Your task to perform on an android device: turn off translation in the chrome app Image 0: 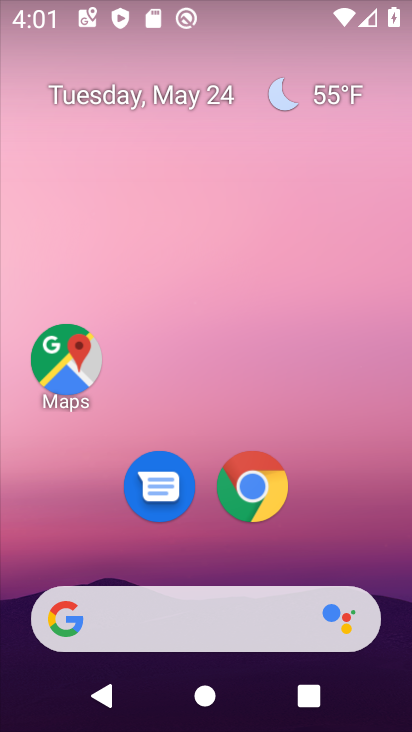
Step 0: drag from (295, 517) to (292, 168)
Your task to perform on an android device: turn off translation in the chrome app Image 1: 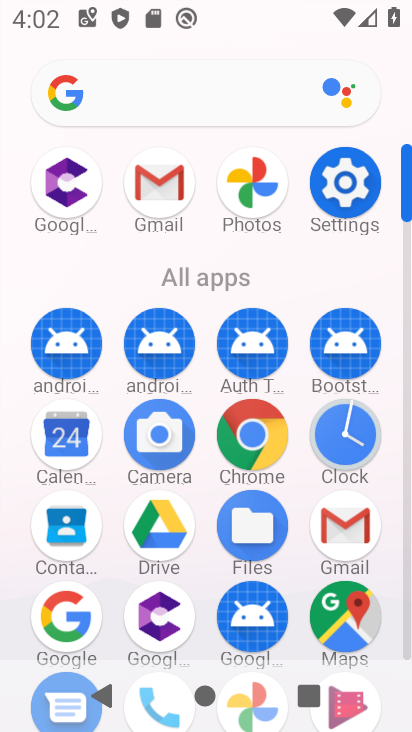
Step 1: click (256, 449)
Your task to perform on an android device: turn off translation in the chrome app Image 2: 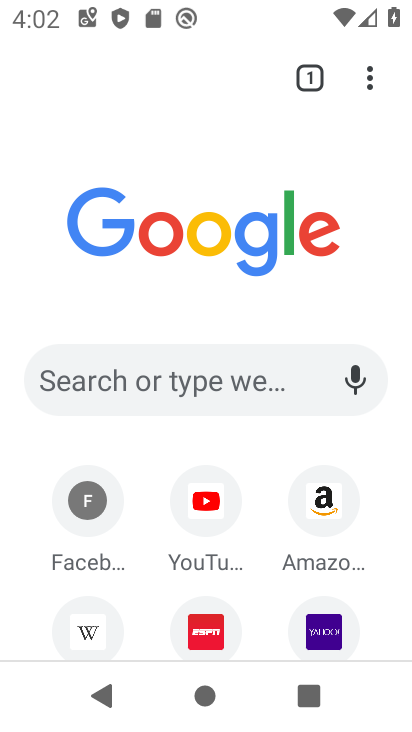
Step 2: click (372, 82)
Your task to perform on an android device: turn off translation in the chrome app Image 3: 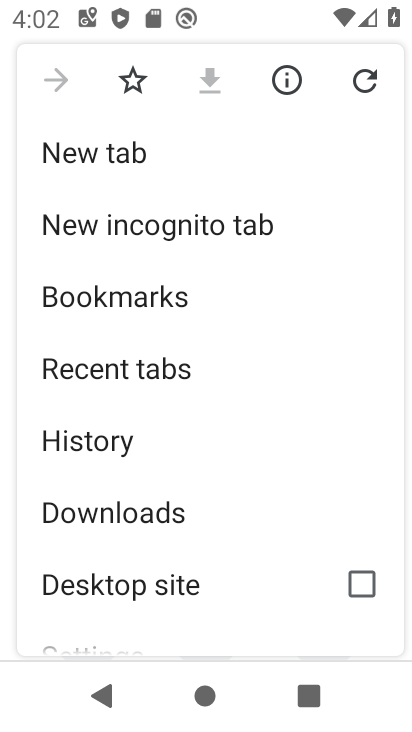
Step 3: drag from (237, 485) to (236, 187)
Your task to perform on an android device: turn off translation in the chrome app Image 4: 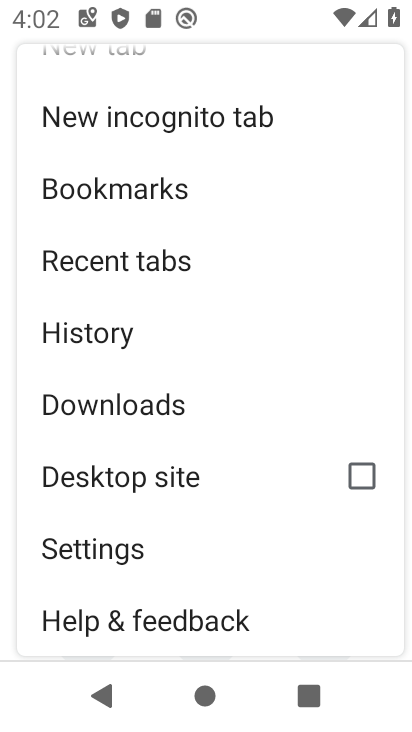
Step 4: click (127, 572)
Your task to perform on an android device: turn off translation in the chrome app Image 5: 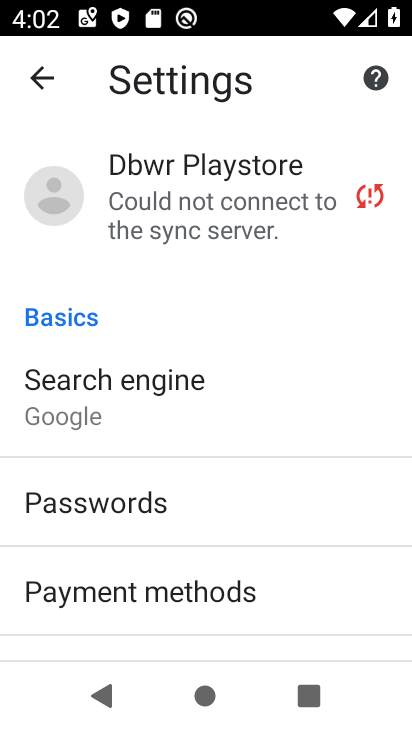
Step 5: drag from (185, 568) to (159, 354)
Your task to perform on an android device: turn off translation in the chrome app Image 6: 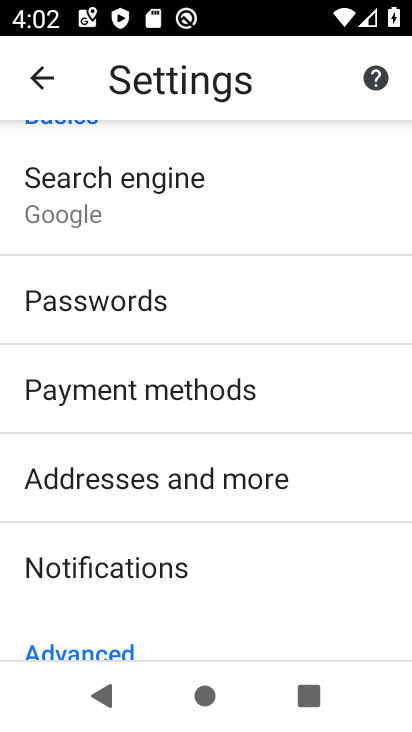
Step 6: drag from (146, 596) to (131, 325)
Your task to perform on an android device: turn off translation in the chrome app Image 7: 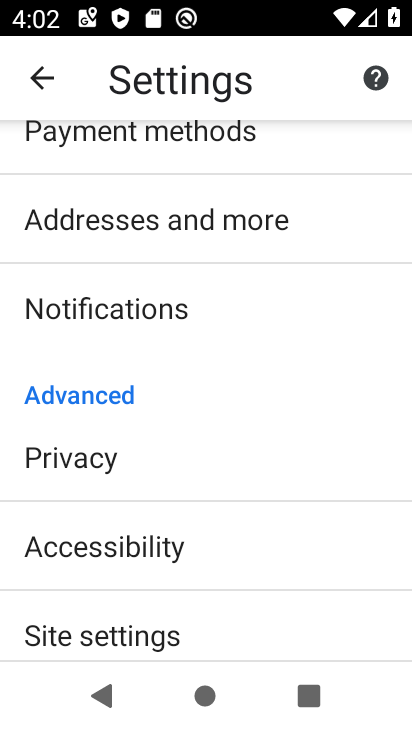
Step 7: drag from (183, 529) to (158, 313)
Your task to perform on an android device: turn off translation in the chrome app Image 8: 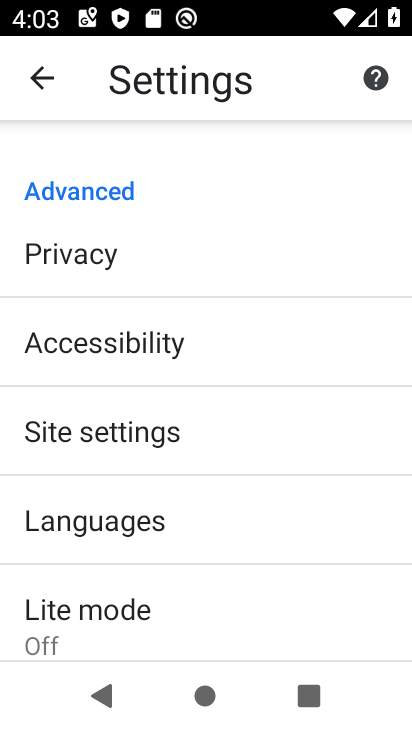
Step 8: click (185, 431)
Your task to perform on an android device: turn off translation in the chrome app Image 9: 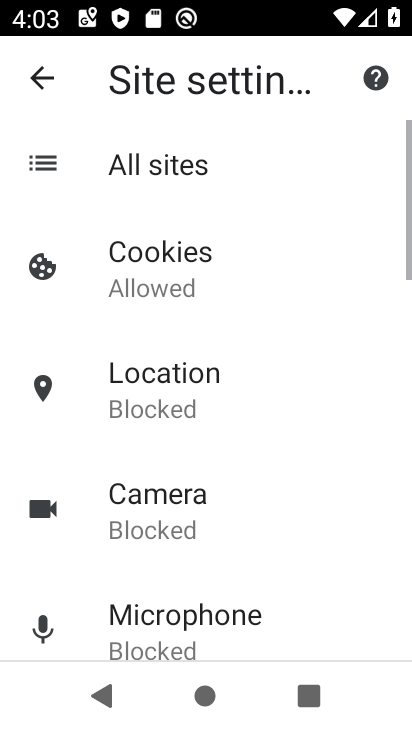
Step 9: drag from (177, 497) to (162, 241)
Your task to perform on an android device: turn off translation in the chrome app Image 10: 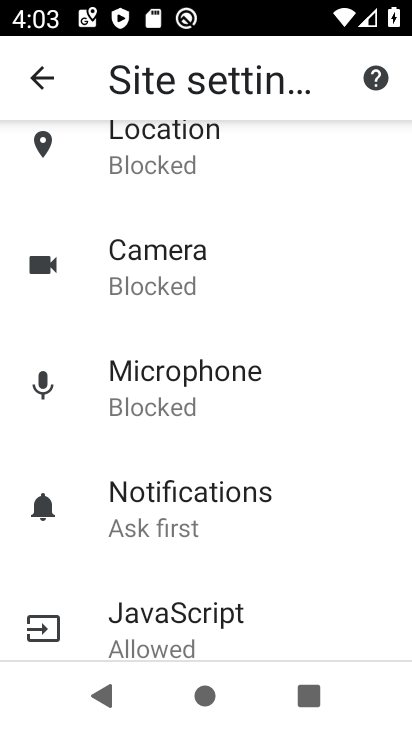
Step 10: drag from (191, 497) to (179, 313)
Your task to perform on an android device: turn off translation in the chrome app Image 11: 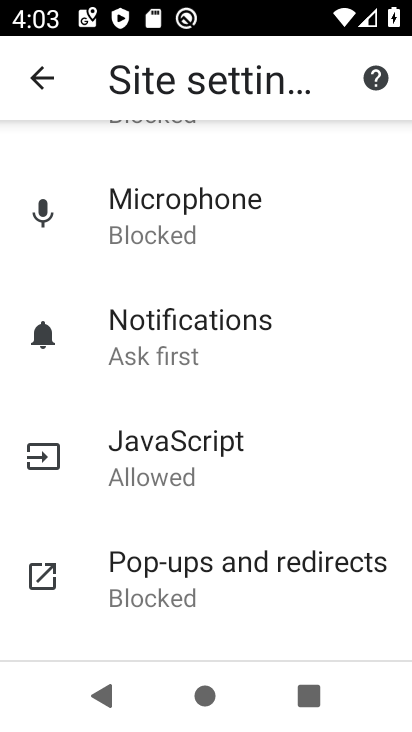
Step 11: drag from (157, 527) to (183, 270)
Your task to perform on an android device: turn off translation in the chrome app Image 12: 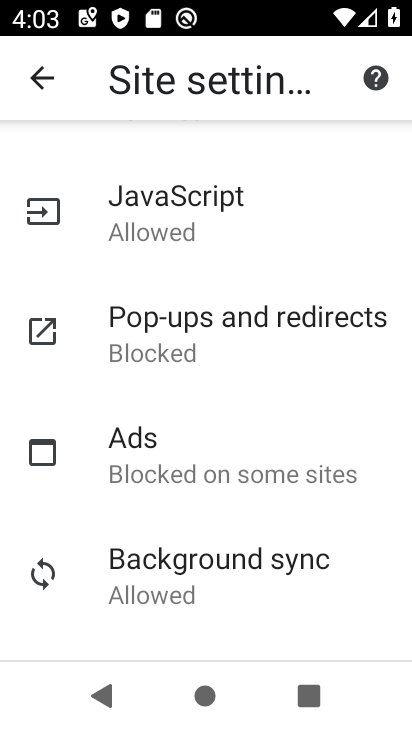
Step 12: drag from (164, 492) to (120, 154)
Your task to perform on an android device: turn off translation in the chrome app Image 13: 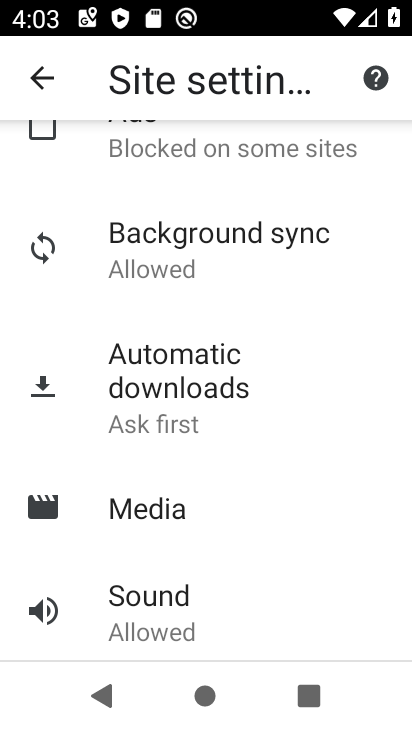
Step 13: drag from (261, 528) to (259, 73)
Your task to perform on an android device: turn off translation in the chrome app Image 14: 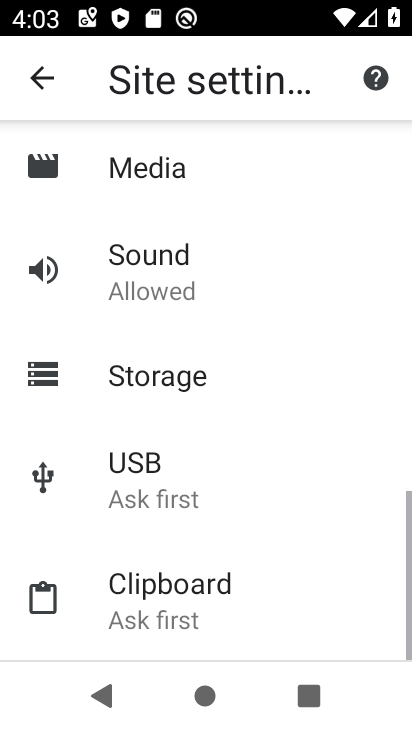
Step 14: drag from (240, 451) to (219, 63)
Your task to perform on an android device: turn off translation in the chrome app Image 15: 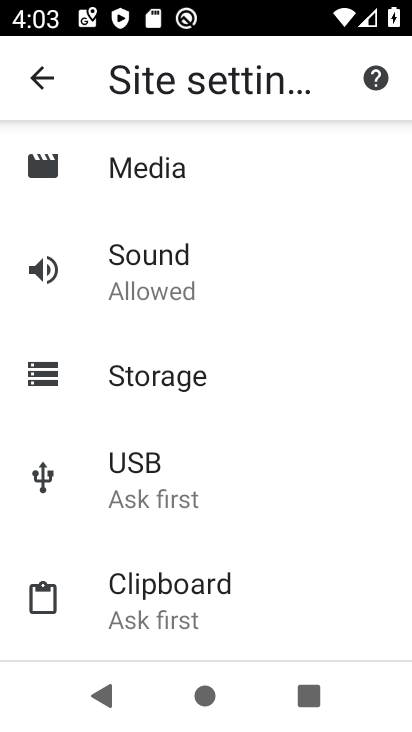
Step 15: press back button
Your task to perform on an android device: turn off translation in the chrome app Image 16: 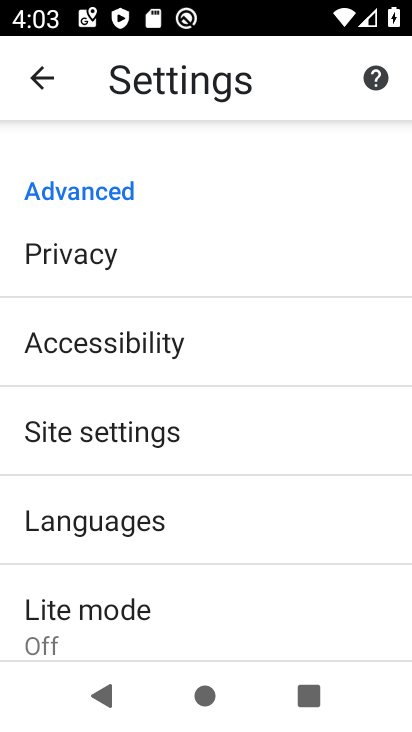
Step 16: click (103, 506)
Your task to perform on an android device: turn off translation in the chrome app Image 17: 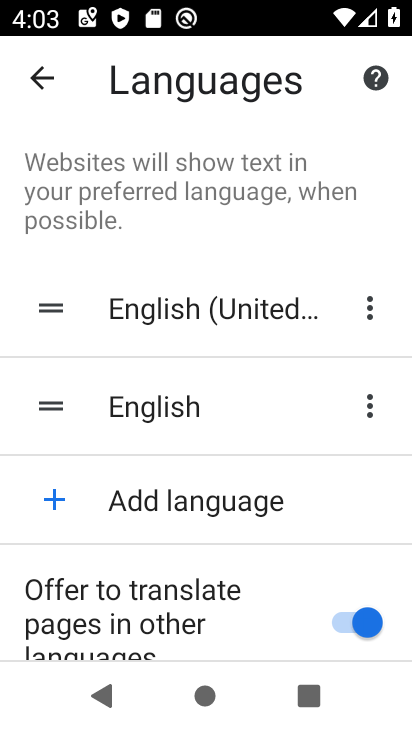
Step 17: drag from (55, 588) to (116, 206)
Your task to perform on an android device: turn off translation in the chrome app Image 18: 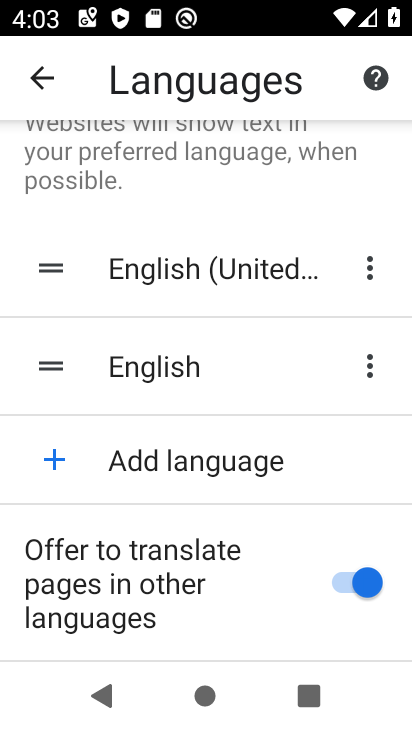
Step 18: click (348, 584)
Your task to perform on an android device: turn off translation in the chrome app Image 19: 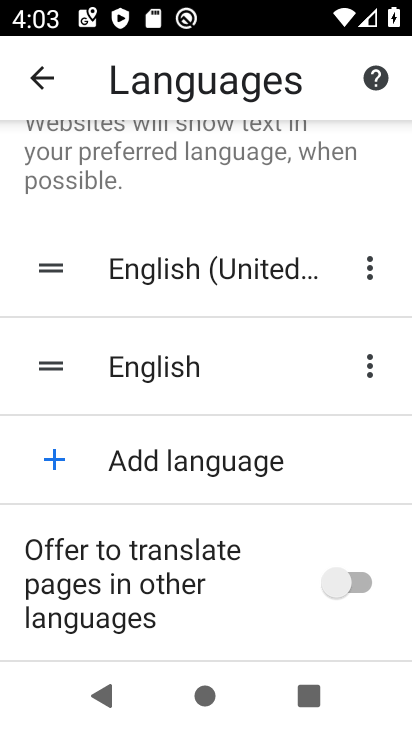
Step 19: task complete